Your task to perform on an android device: Go to Maps Image 0: 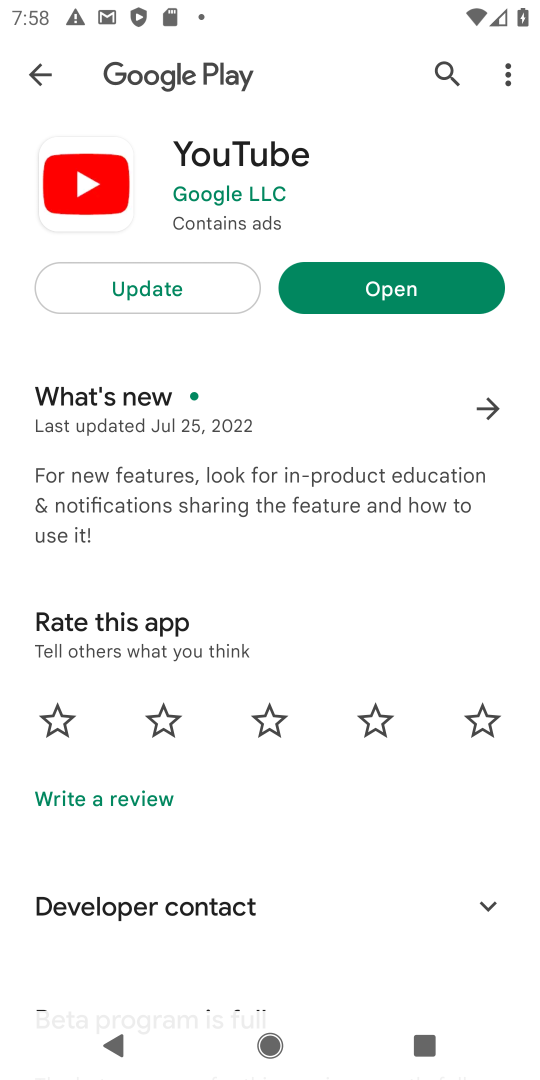
Step 0: press home button
Your task to perform on an android device: Go to Maps Image 1: 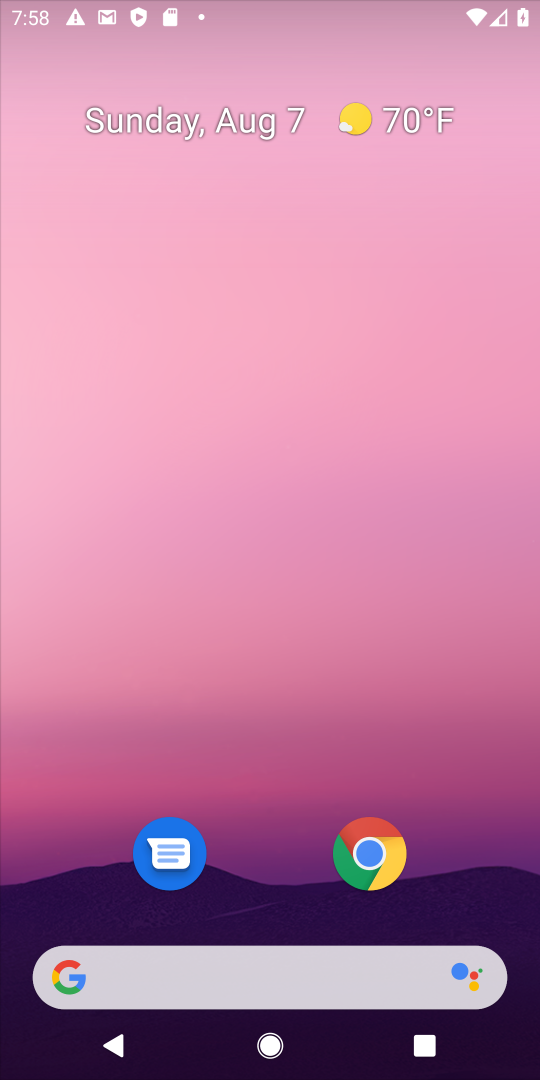
Step 1: drag from (288, 819) to (385, 100)
Your task to perform on an android device: Go to Maps Image 2: 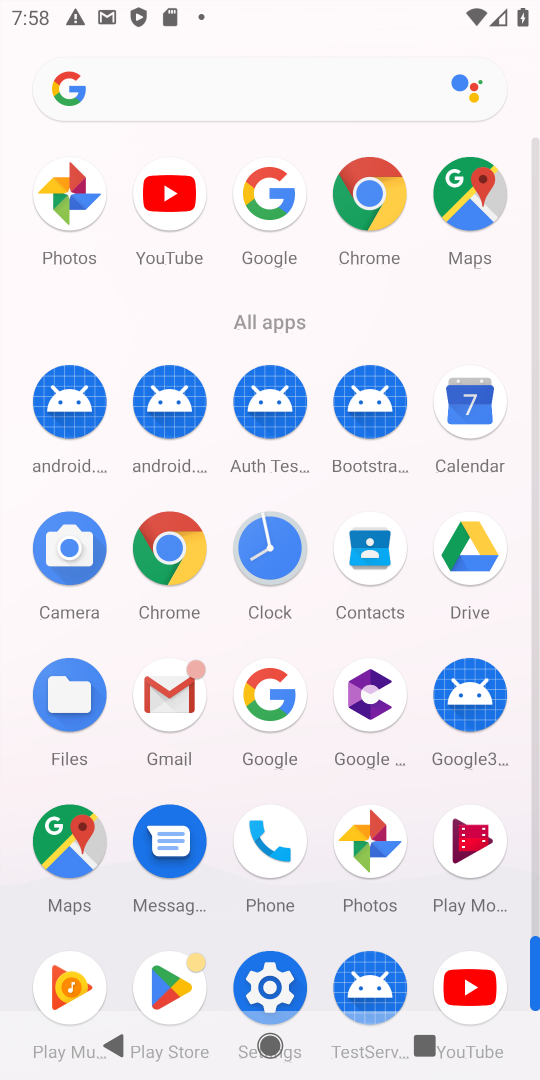
Step 2: click (85, 862)
Your task to perform on an android device: Go to Maps Image 3: 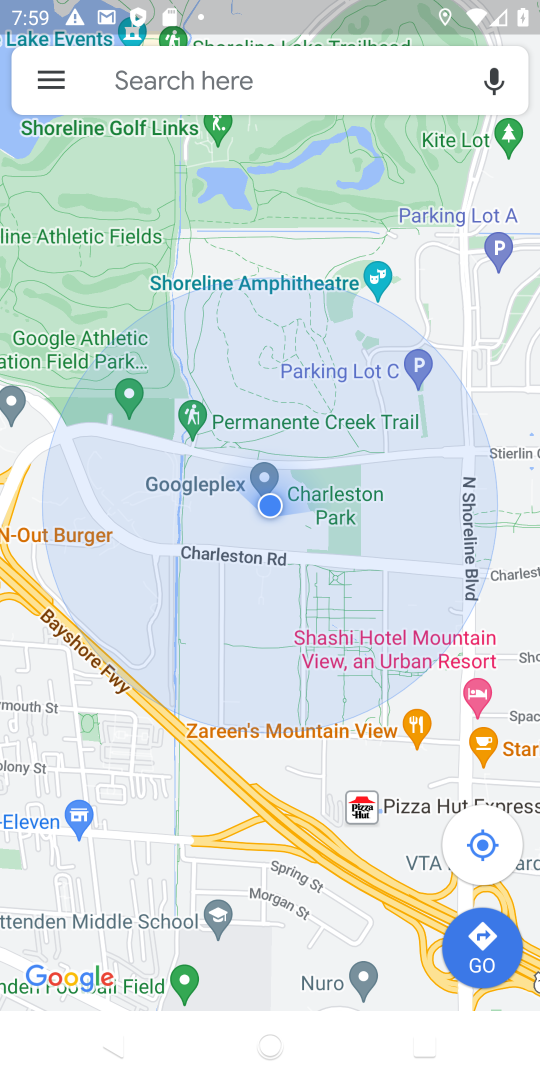
Step 3: task complete